Your task to perform on an android device: Show the shopping cart on ebay.com. Search for corsair k70 on ebay.com, select the first entry, and add it to the cart. Image 0: 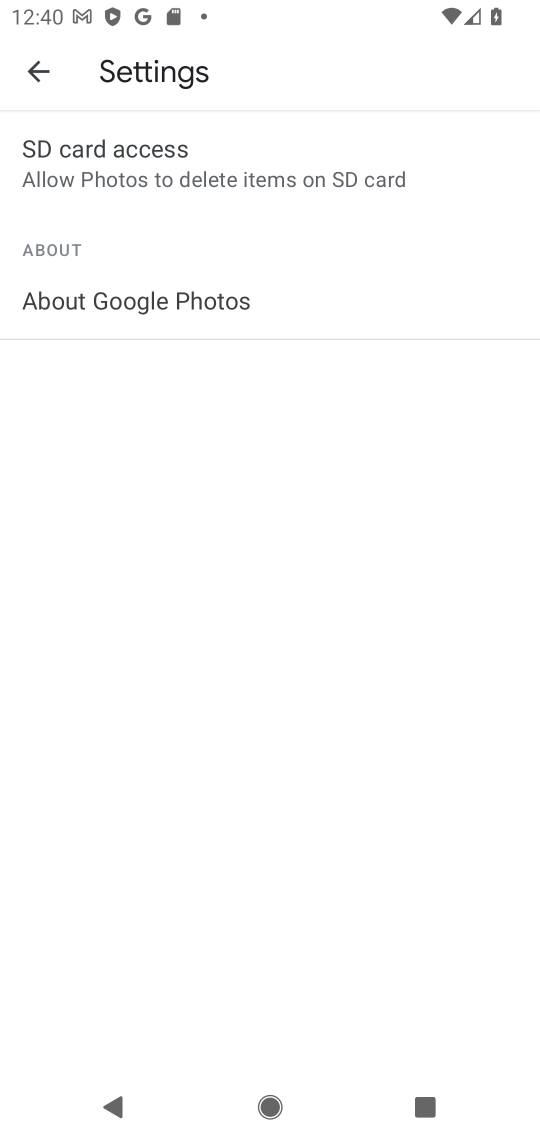
Step 0: press home button
Your task to perform on an android device: Show the shopping cart on ebay.com. Search for corsair k70 on ebay.com, select the first entry, and add it to the cart. Image 1: 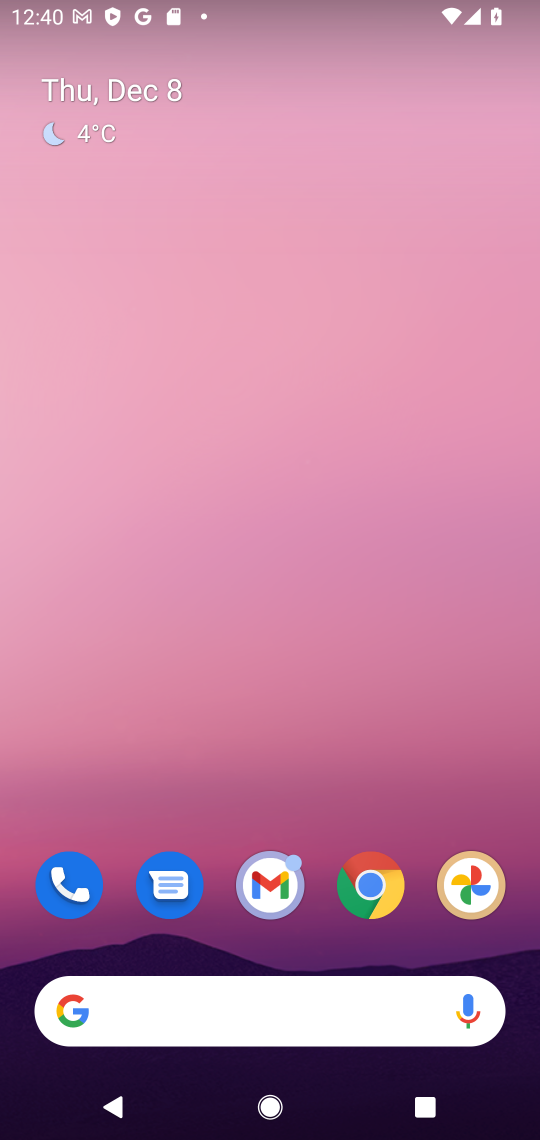
Step 1: click (377, 879)
Your task to perform on an android device: Show the shopping cart on ebay.com. Search for corsair k70 on ebay.com, select the first entry, and add it to the cart. Image 2: 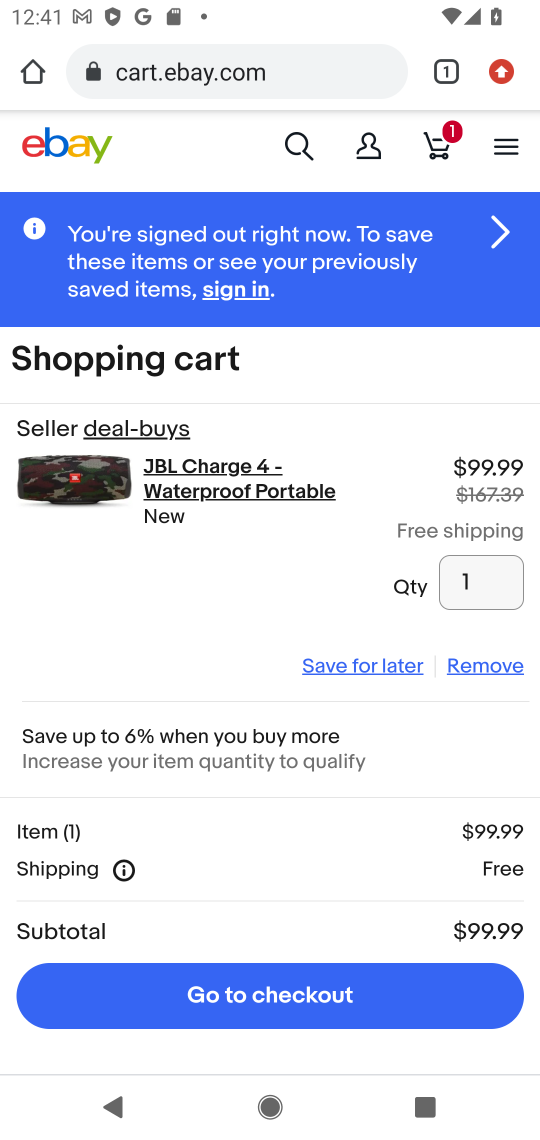
Step 2: click (431, 130)
Your task to perform on an android device: Show the shopping cart on ebay.com. Search for corsair k70 on ebay.com, select the first entry, and add it to the cart. Image 3: 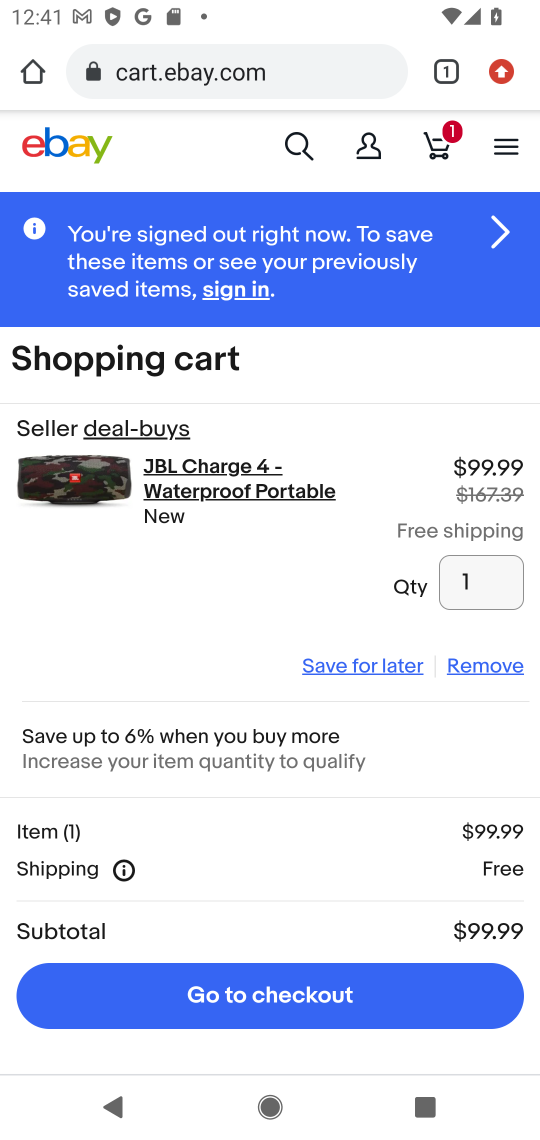
Step 3: click (297, 146)
Your task to perform on an android device: Show the shopping cart on ebay.com. Search for corsair k70 on ebay.com, select the first entry, and add it to the cart. Image 4: 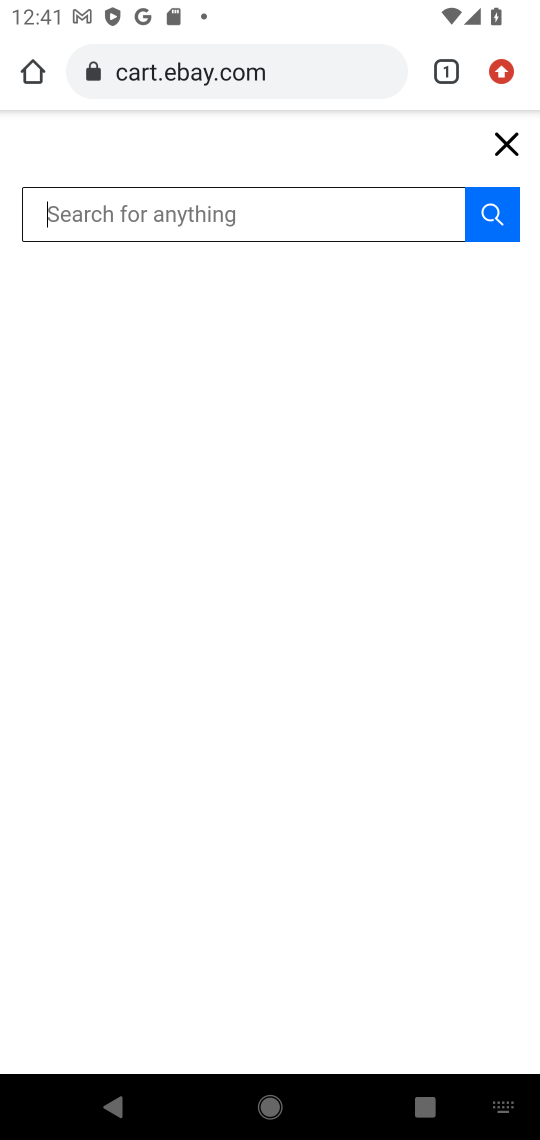
Step 4: type "corsair k70"
Your task to perform on an android device: Show the shopping cart on ebay.com. Search for corsair k70 on ebay.com, select the first entry, and add it to the cart. Image 5: 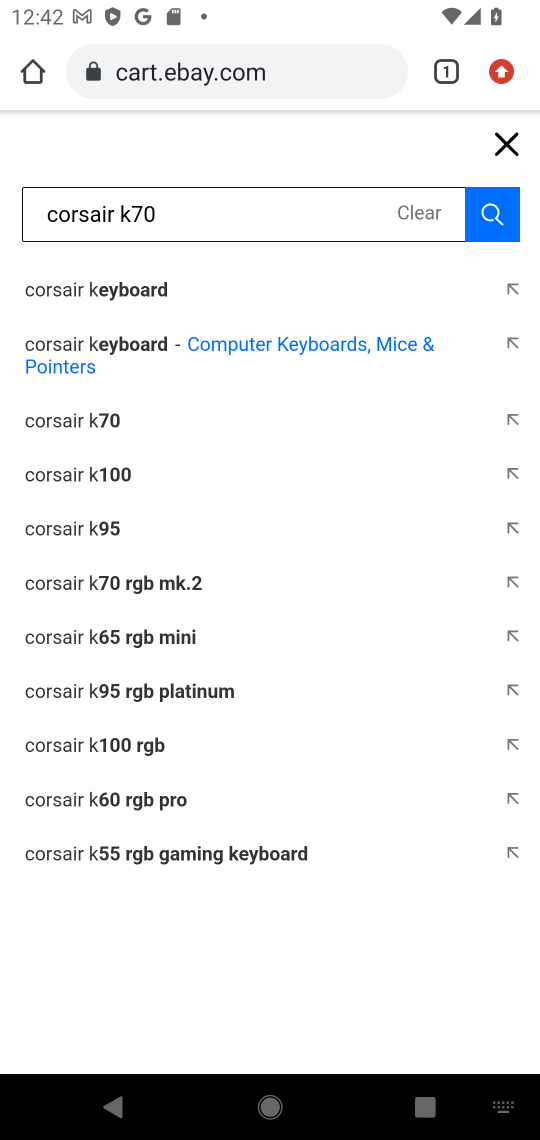
Step 5: click (142, 299)
Your task to perform on an android device: Show the shopping cart on ebay.com. Search for corsair k70 on ebay.com, select the first entry, and add it to the cart. Image 6: 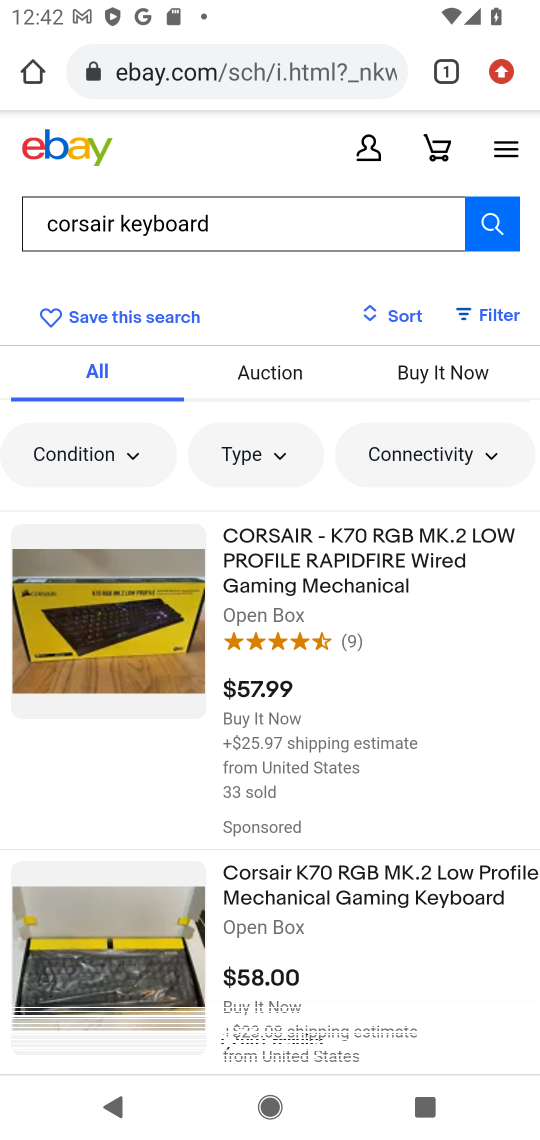
Step 6: click (106, 647)
Your task to perform on an android device: Show the shopping cart on ebay.com. Search for corsair k70 on ebay.com, select the first entry, and add it to the cart. Image 7: 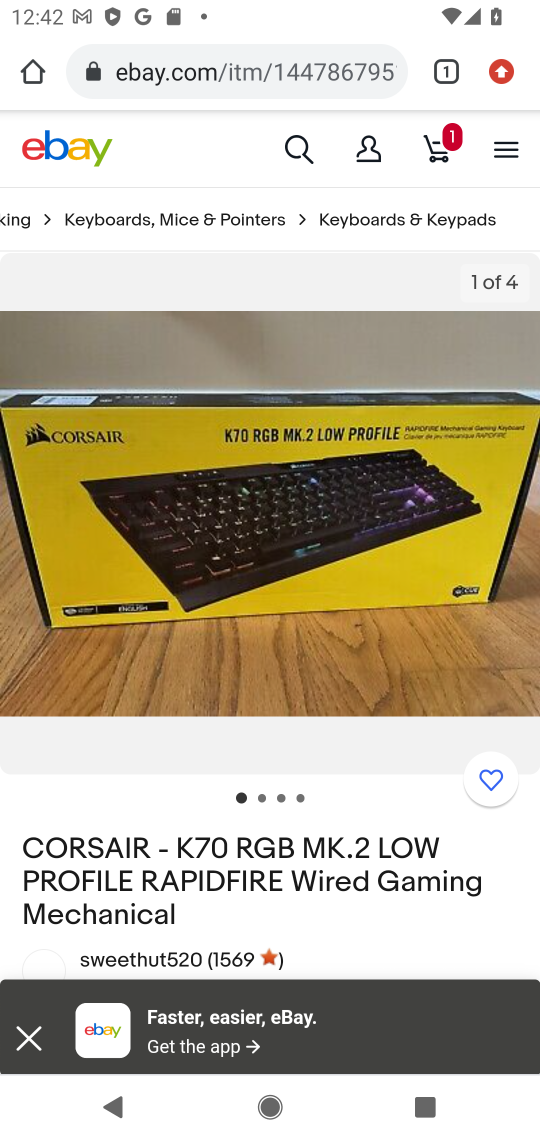
Step 7: drag from (379, 920) to (347, 324)
Your task to perform on an android device: Show the shopping cart on ebay.com. Search for corsair k70 on ebay.com, select the first entry, and add it to the cart. Image 8: 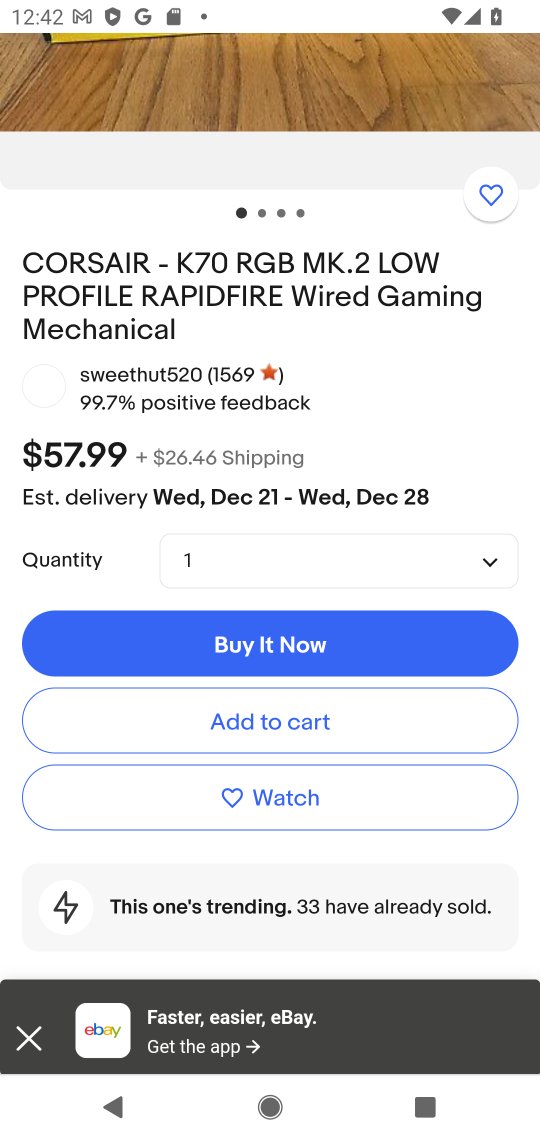
Step 8: click (283, 726)
Your task to perform on an android device: Show the shopping cart on ebay.com. Search for corsair k70 on ebay.com, select the first entry, and add it to the cart. Image 9: 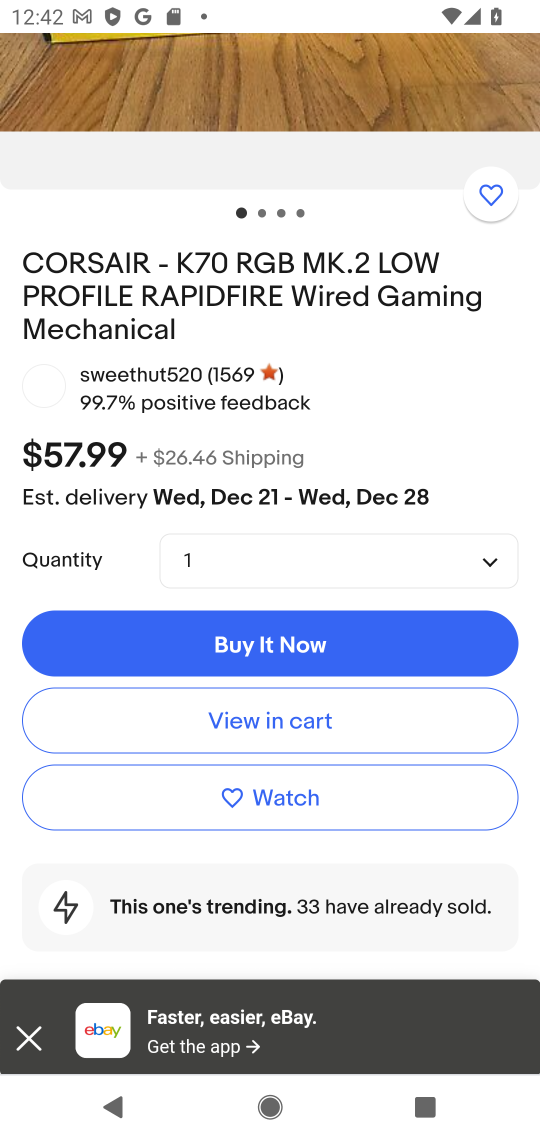
Step 9: click (403, 730)
Your task to perform on an android device: Show the shopping cart on ebay.com. Search for corsair k70 on ebay.com, select the first entry, and add it to the cart. Image 10: 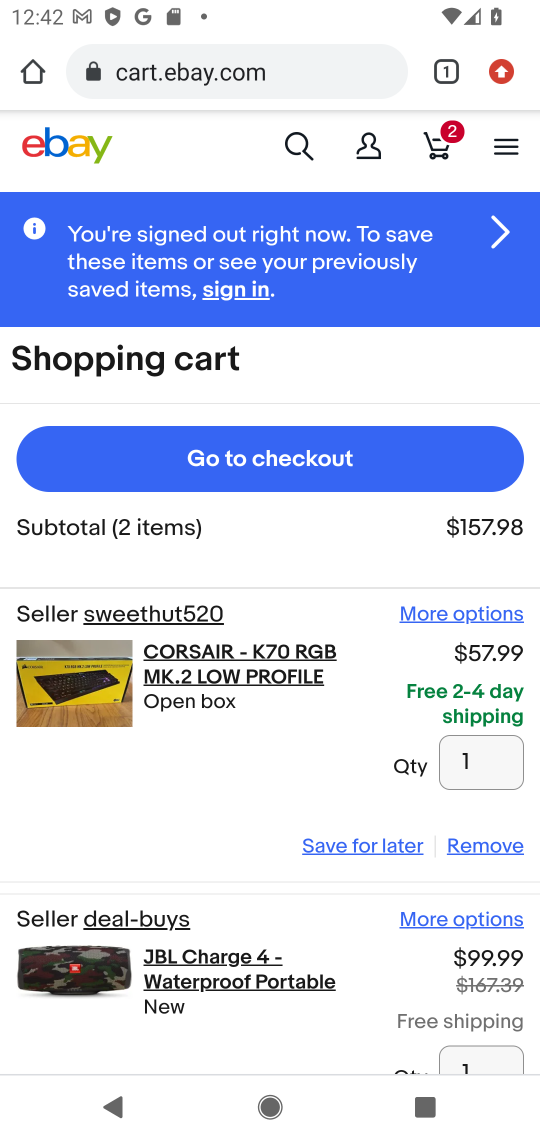
Step 10: task complete